Your task to perform on an android device: Go to accessibility settings Image 0: 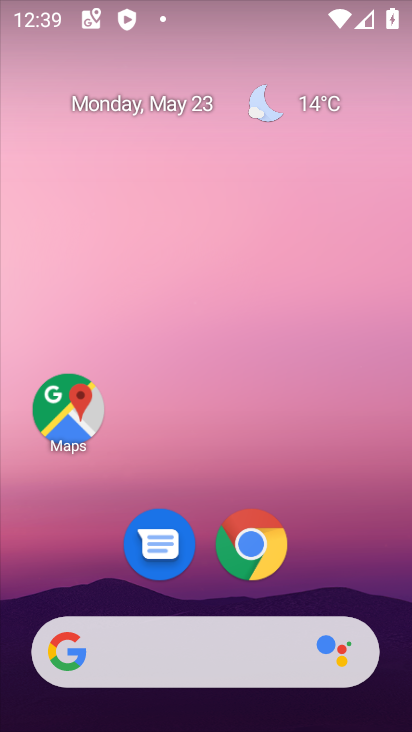
Step 0: drag from (308, 547) to (296, 108)
Your task to perform on an android device: Go to accessibility settings Image 1: 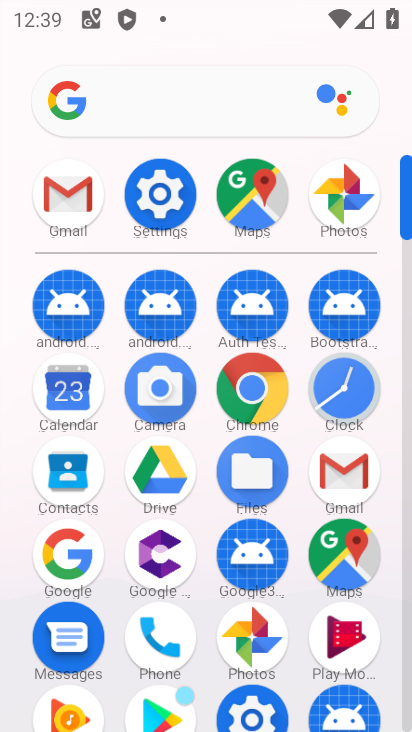
Step 1: click (157, 174)
Your task to perform on an android device: Go to accessibility settings Image 2: 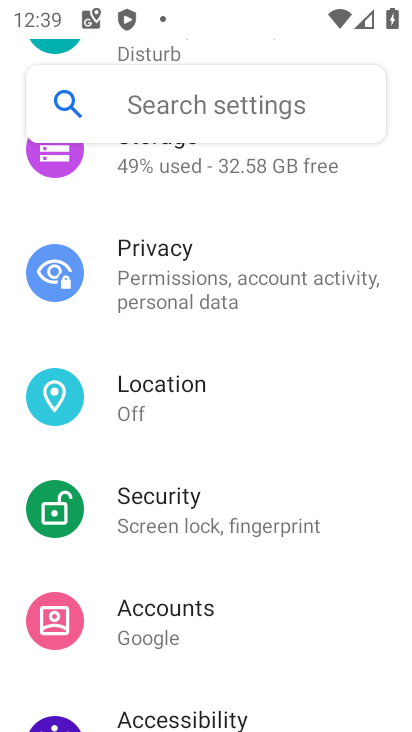
Step 2: drag from (227, 588) to (262, 130)
Your task to perform on an android device: Go to accessibility settings Image 3: 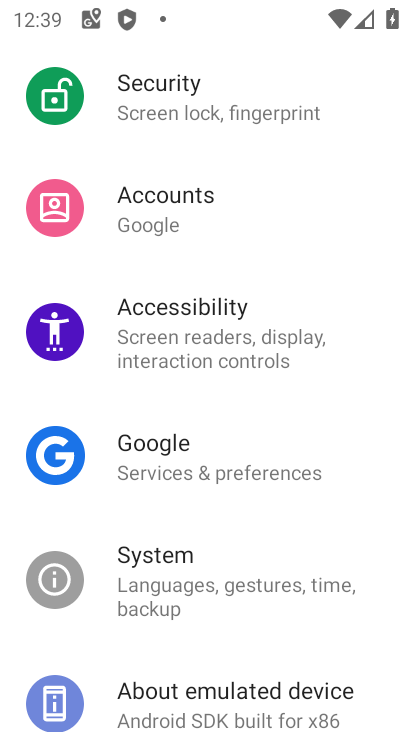
Step 3: drag from (241, 572) to (291, 182)
Your task to perform on an android device: Go to accessibility settings Image 4: 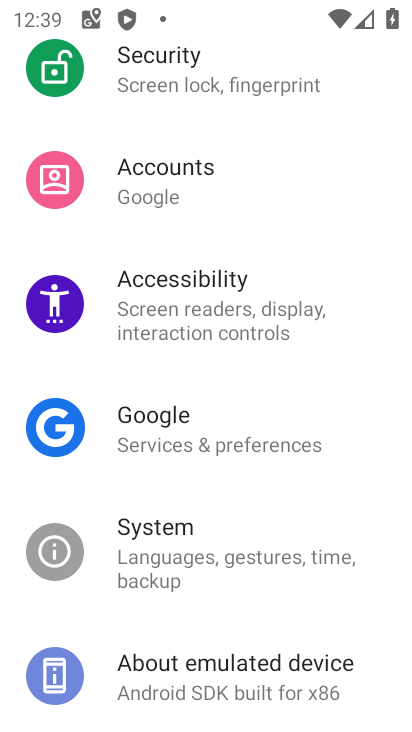
Step 4: click (160, 291)
Your task to perform on an android device: Go to accessibility settings Image 5: 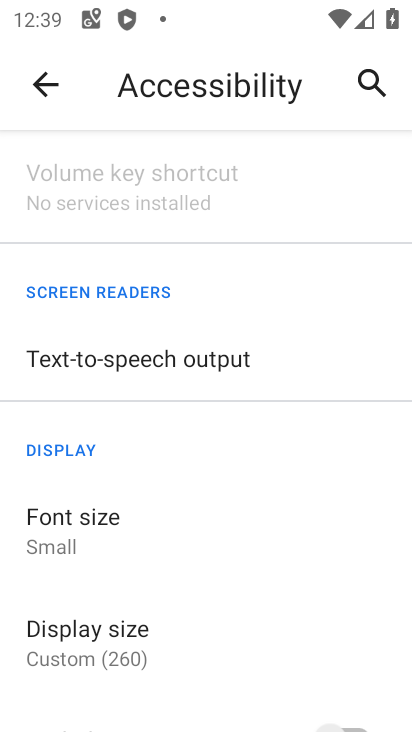
Step 5: task complete